Your task to perform on an android device: visit the assistant section in the google photos Image 0: 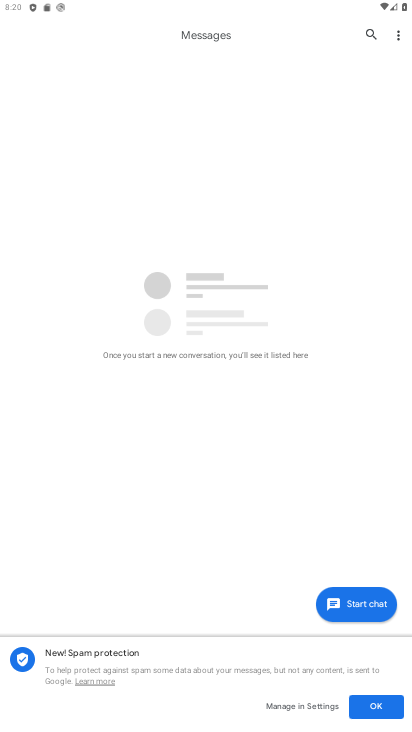
Step 0: press home button
Your task to perform on an android device: visit the assistant section in the google photos Image 1: 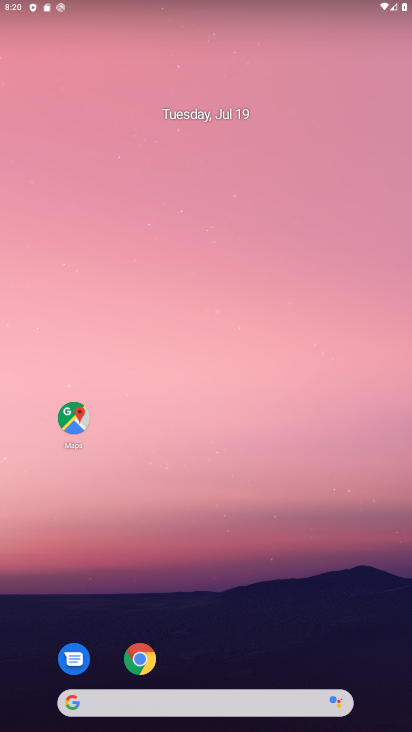
Step 1: drag from (199, 622) to (244, 159)
Your task to perform on an android device: visit the assistant section in the google photos Image 2: 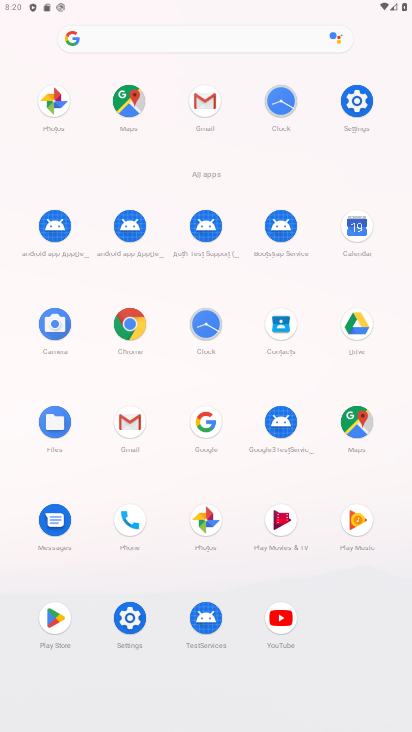
Step 2: click (206, 518)
Your task to perform on an android device: visit the assistant section in the google photos Image 3: 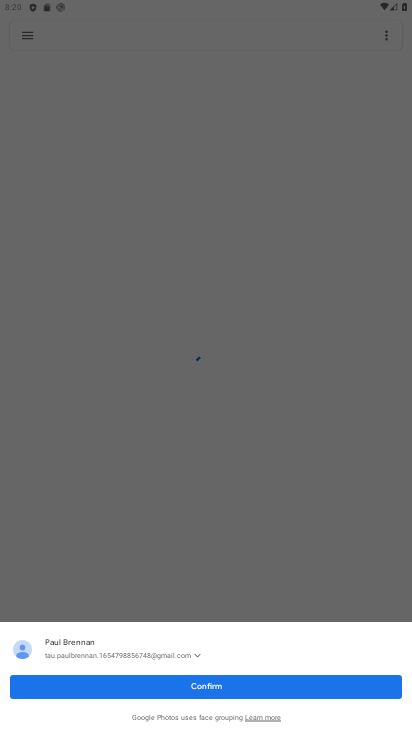
Step 3: click (207, 689)
Your task to perform on an android device: visit the assistant section in the google photos Image 4: 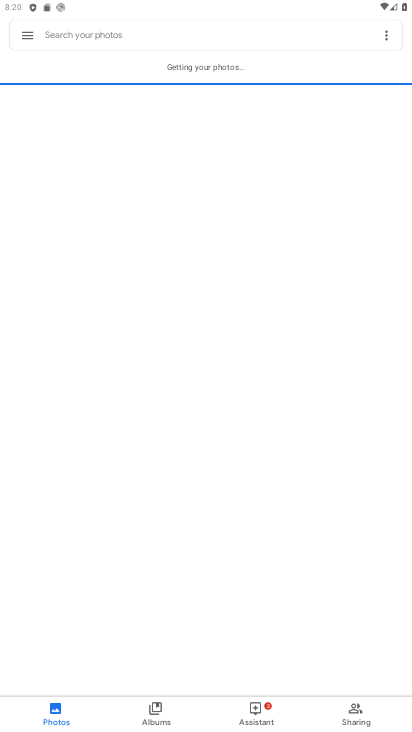
Step 4: click (266, 717)
Your task to perform on an android device: visit the assistant section in the google photos Image 5: 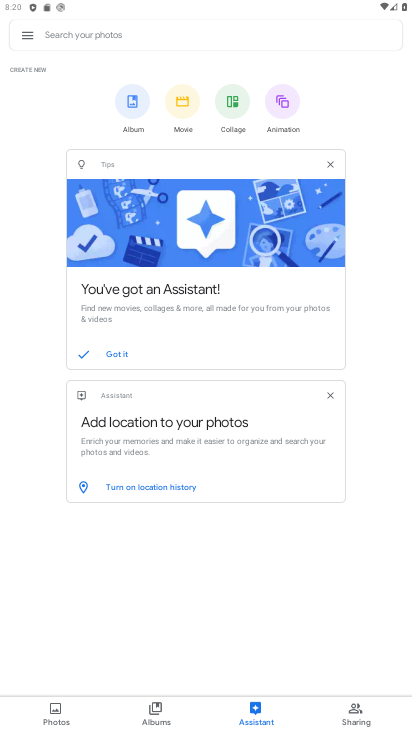
Step 5: task complete